Your task to perform on an android device: Toggle the flashlight Image 0: 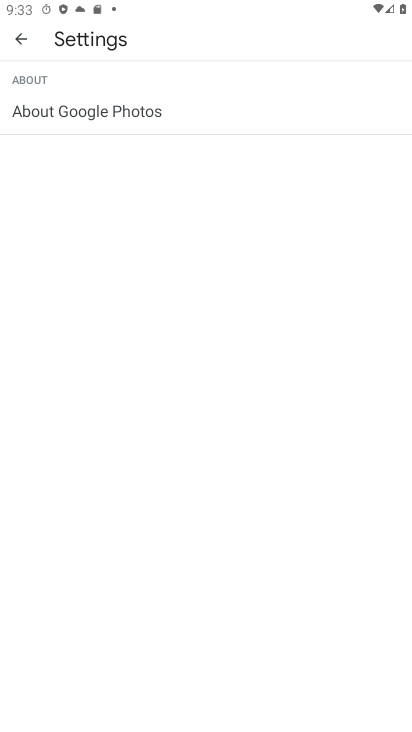
Step 0: drag from (188, 376) to (132, 199)
Your task to perform on an android device: Toggle the flashlight Image 1: 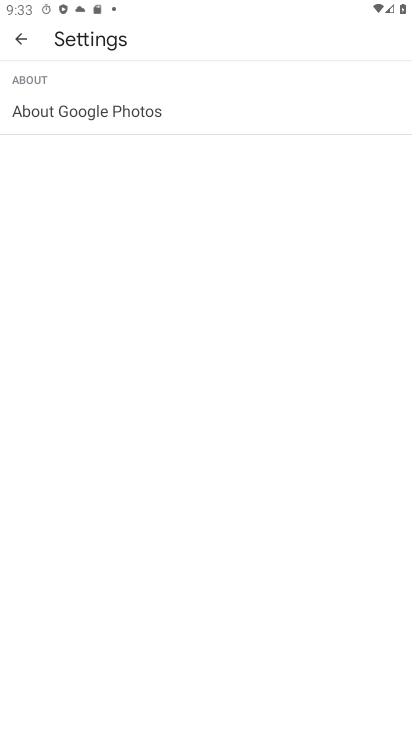
Step 1: click (21, 46)
Your task to perform on an android device: Toggle the flashlight Image 2: 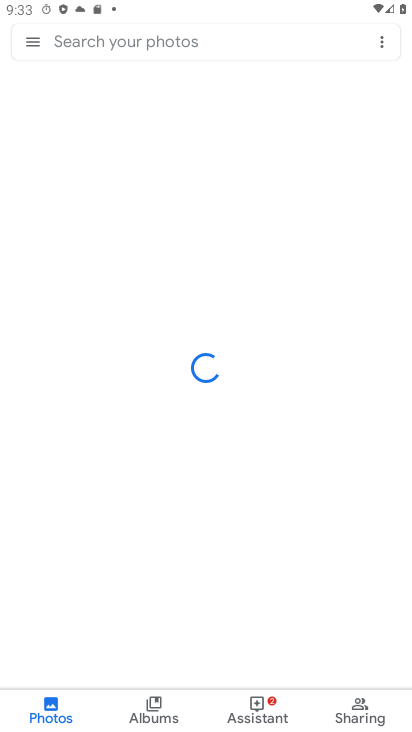
Step 2: task complete